Your task to perform on an android device: Open my contact list Image 0: 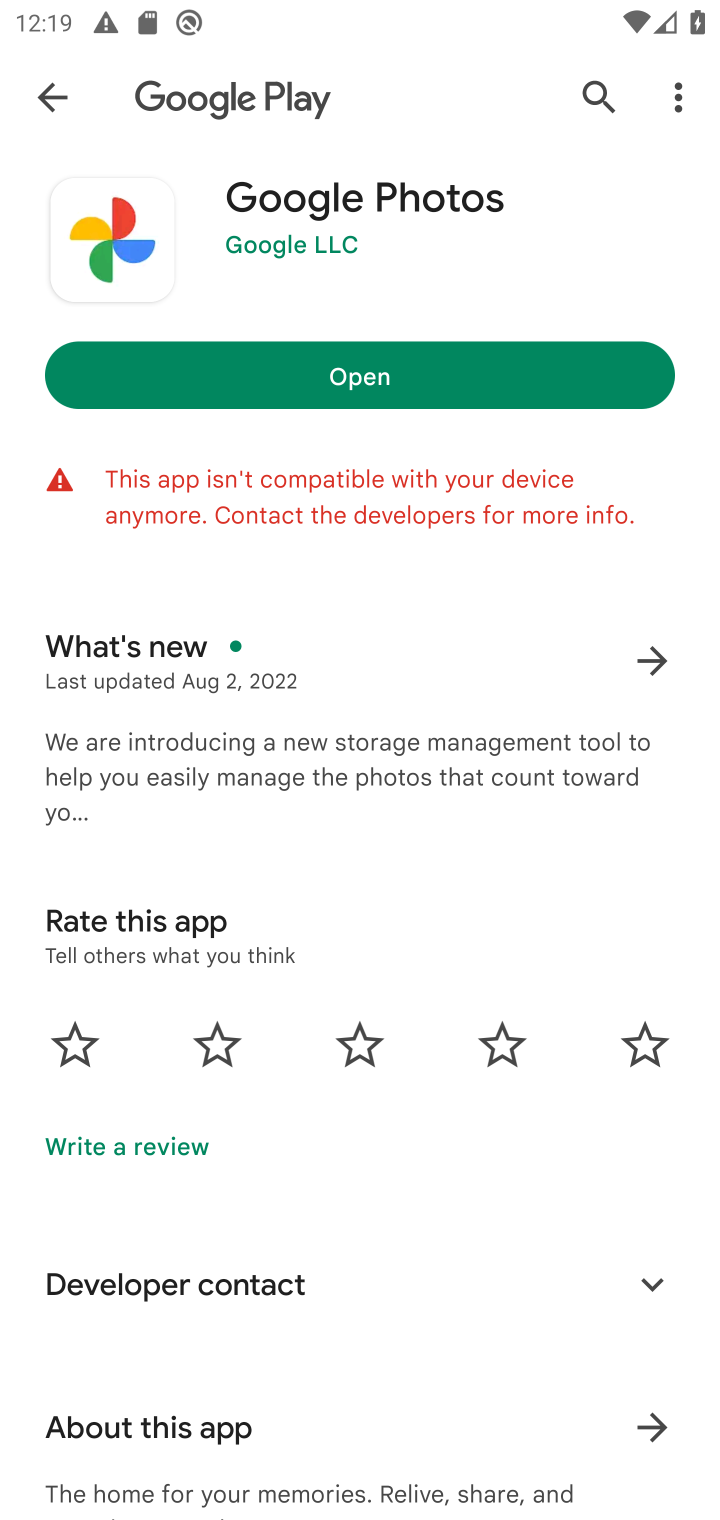
Step 0: press home button
Your task to perform on an android device: Open my contact list Image 1: 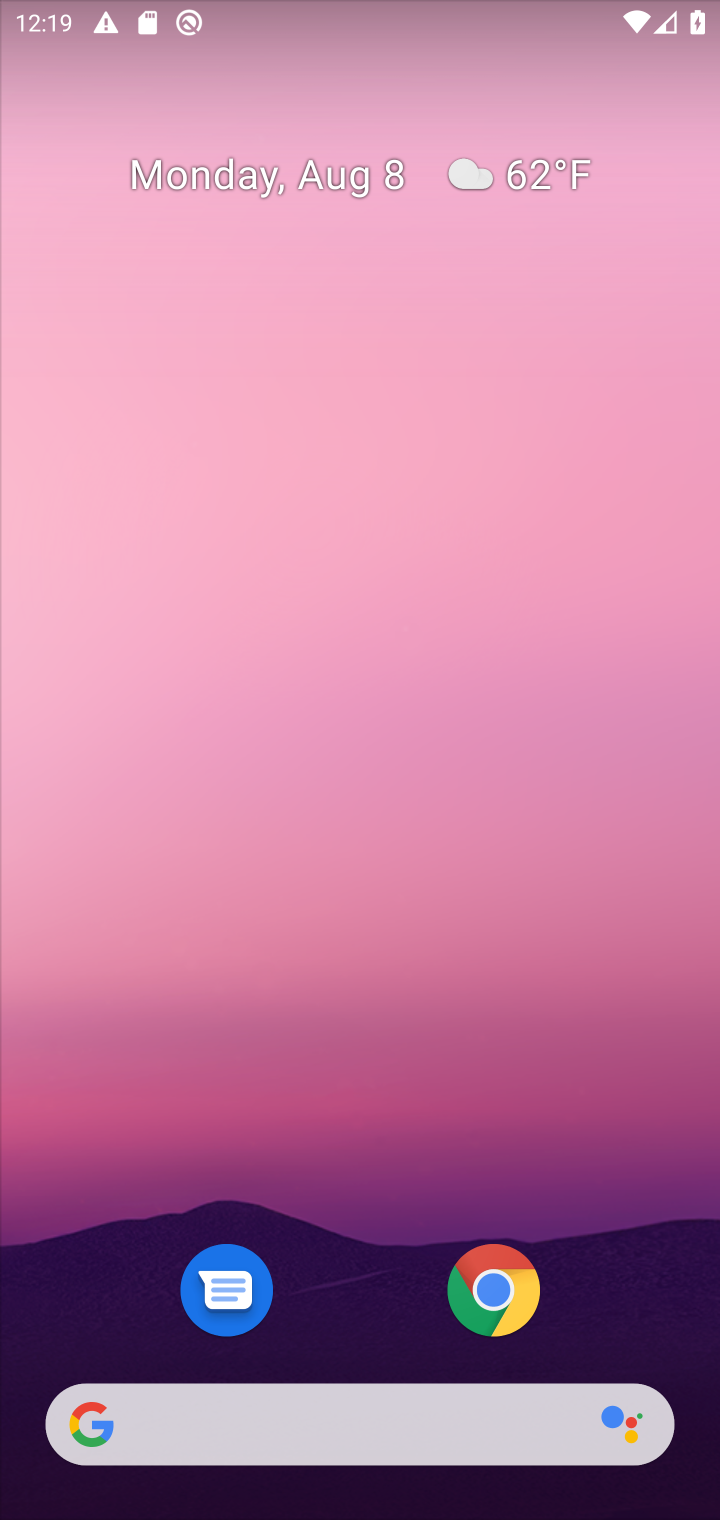
Step 1: drag from (369, 1071) to (418, 720)
Your task to perform on an android device: Open my contact list Image 2: 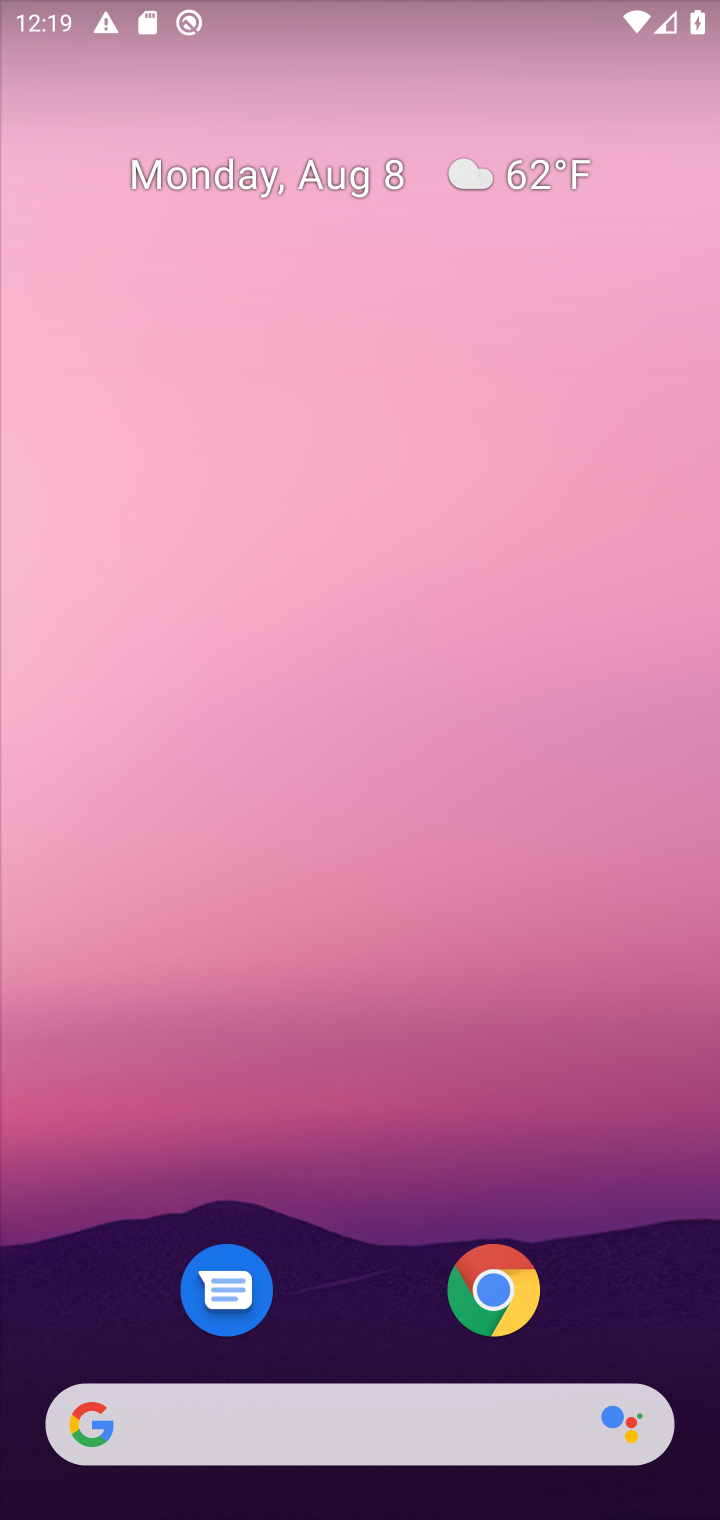
Step 2: drag from (349, 1381) to (331, 537)
Your task to perform on an android device: Open my contact list Image 3: 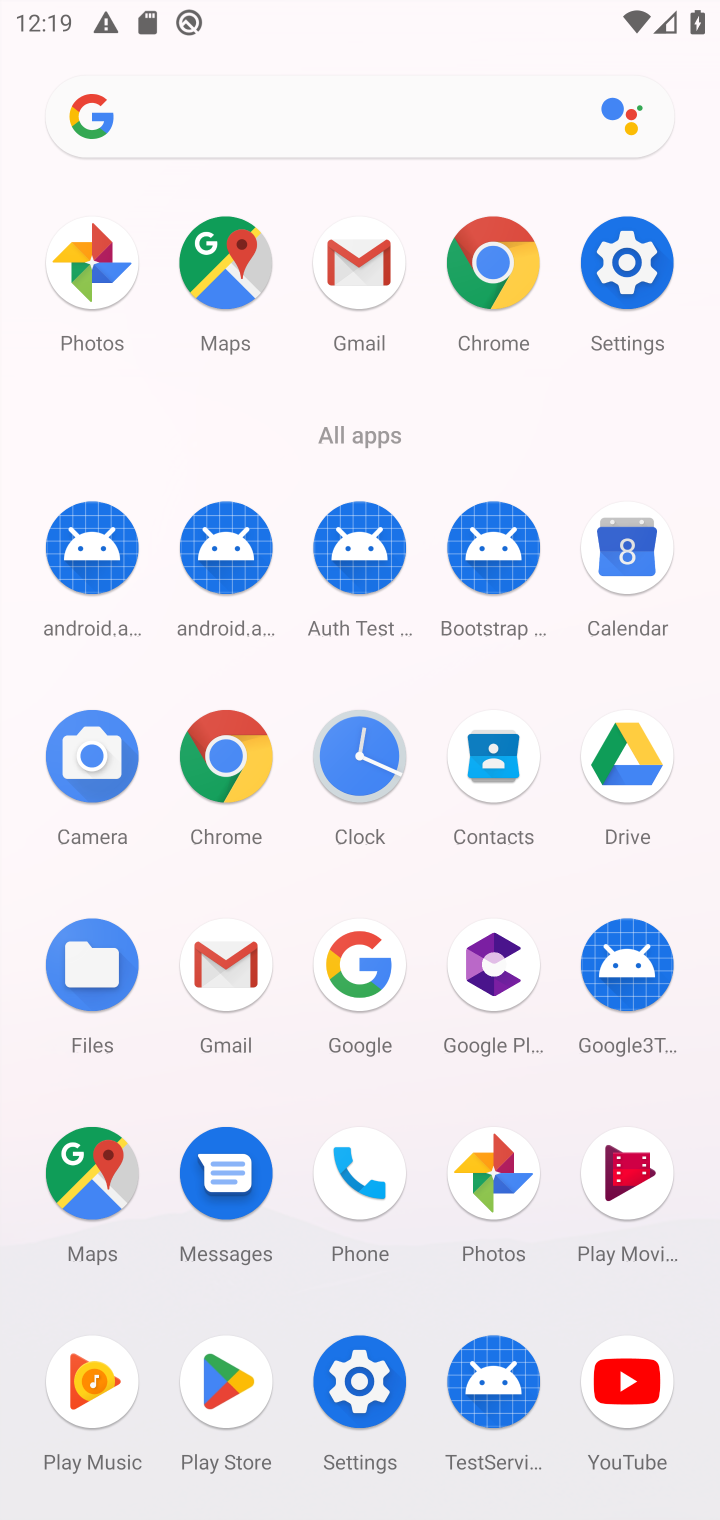
Step 3: click (499, 771)
Your task to perform on an android device: Open my contact list Image 4: 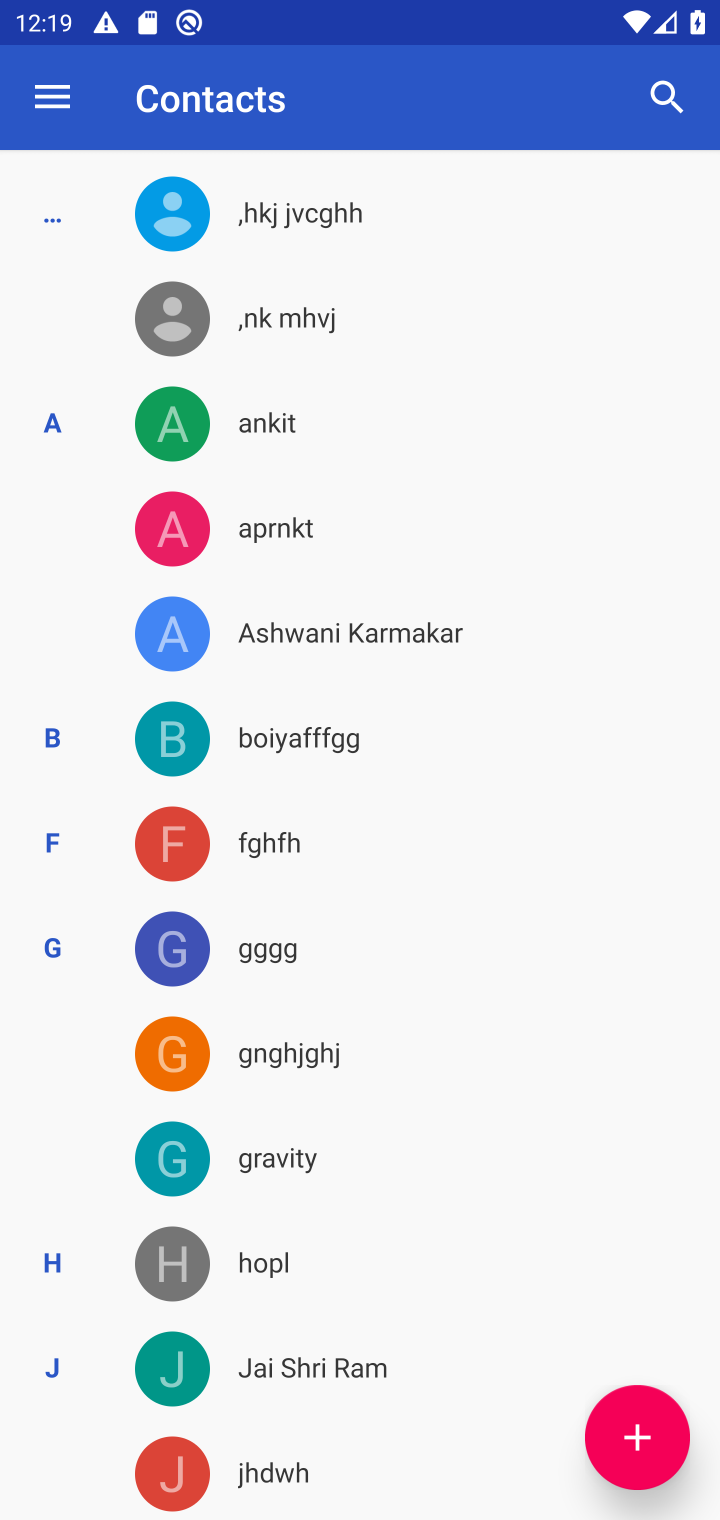
Step 4: task complete